Your task to perform on an android device: clear all cookies in the chrome app Image 0: 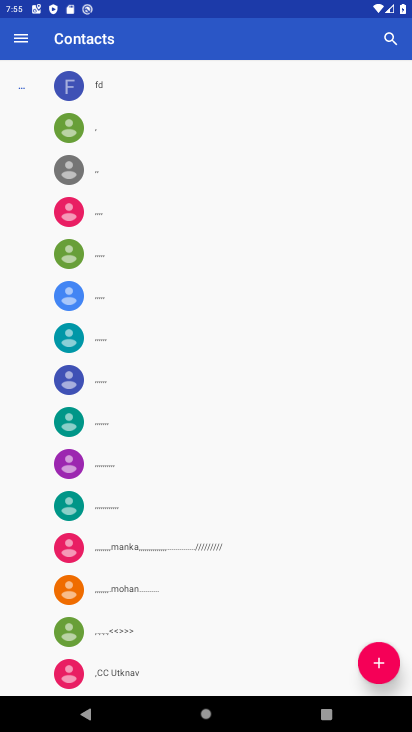
Step 0: press home button
Your task to perform on an android device: clear all cookies in the chrome app Image 1: 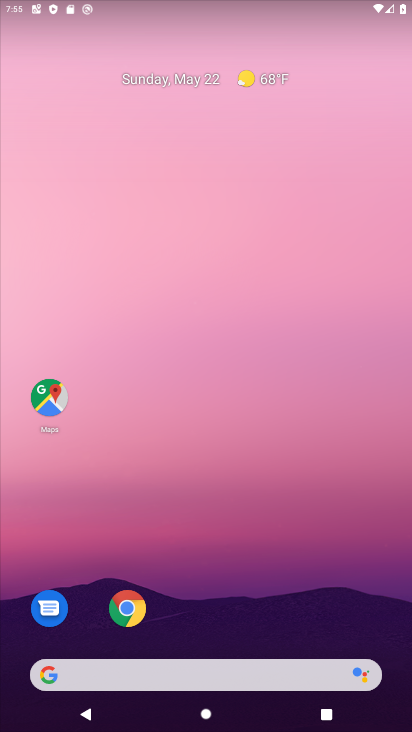
Step 1: click (130, 611)
Your task to perform on an android device: clear all cookies in the chrome app Image 2: 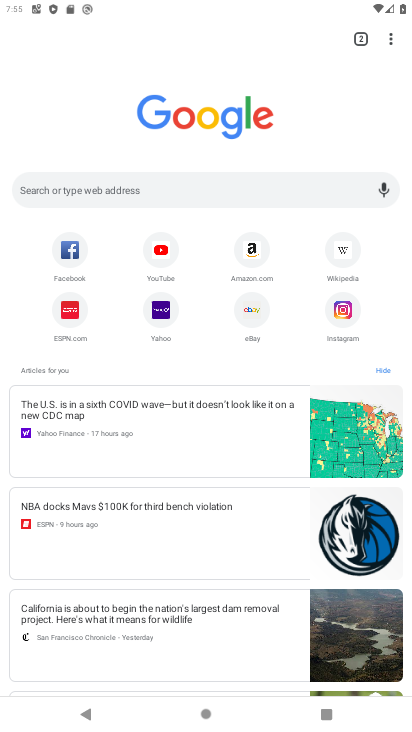
Step 2: click (392, 41)
Your task to perform on an android device: clear all cookies in the chrome app Image 3: 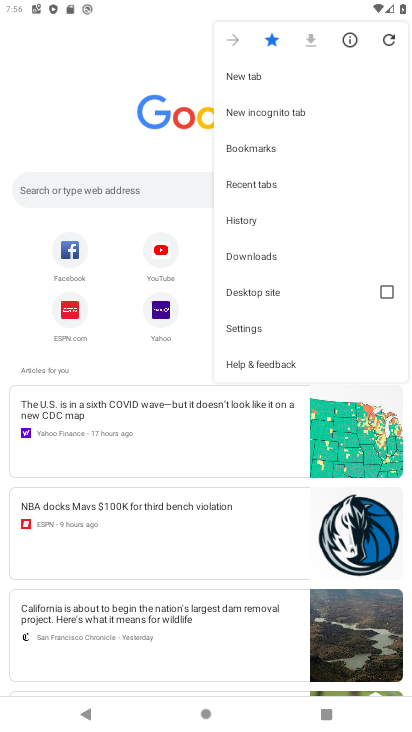
Step 3: click (241, 218)
Your task to perform on an android device: clear all cookies in the chrome app Image 4: 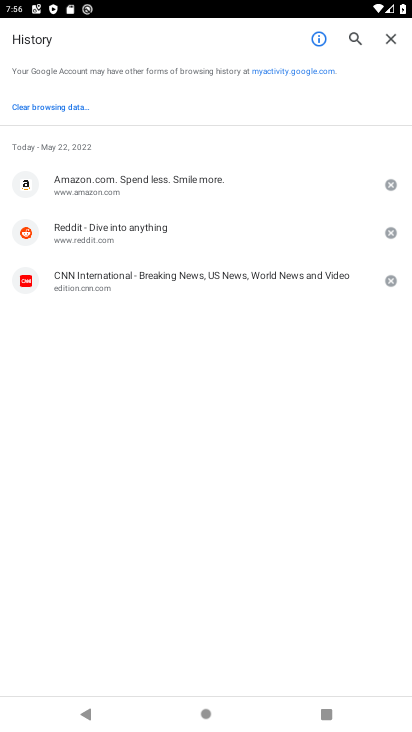
Step 4: click (73, 105)
Your task to perform on an android device: clear all cookies in the chrome app Image 5: 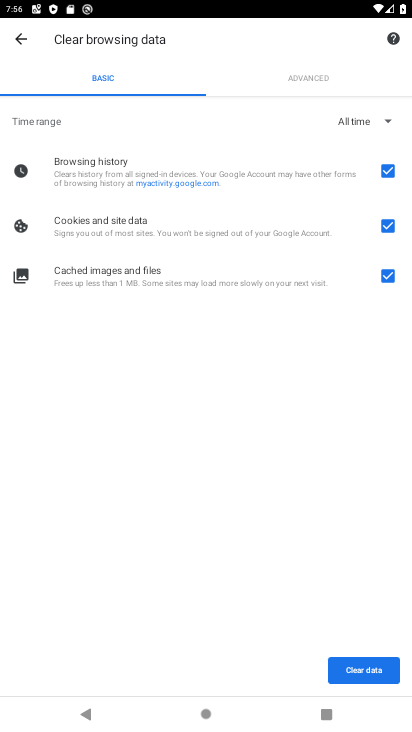
Step 5: click (389, 170)
Your task to perform on an android device: clear all cookies in the chrome app Image 6: 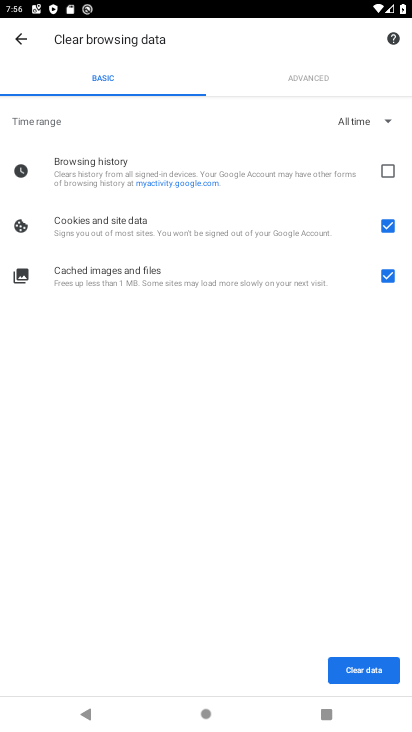
Step 6: click (391, 279)
Your task to perform on an android device: clear all cookies in the chrome app Image 7: 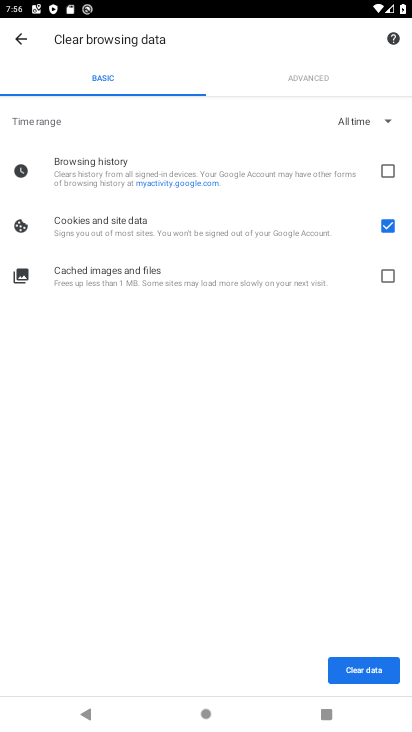
Step 7: click (351, 675)
Your task to perform on an android device: clear all cookies in the chrome app Image 8: 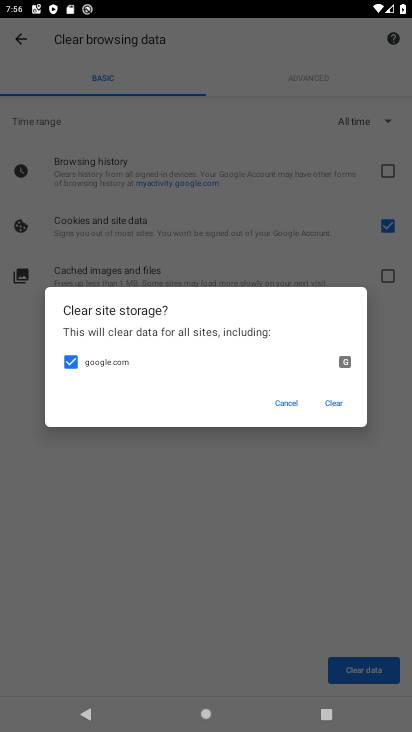
Step 8: click (338, 403)
Your task to perform on an android device: clear all cookies in the chrome app Image 9: 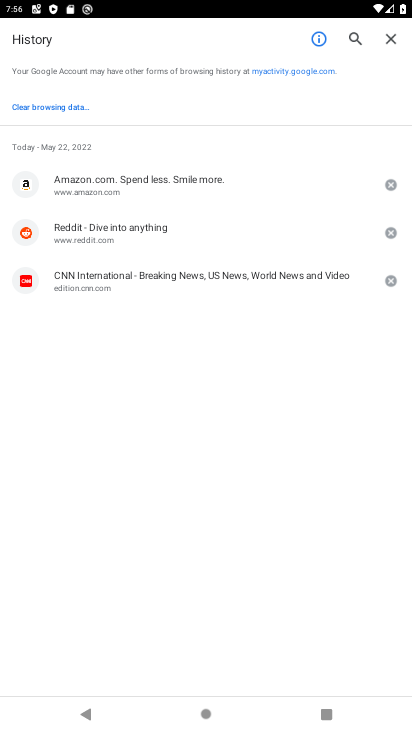
Step 9: task complete